Your task to perform on an android device: Open the calendar app, open the side menu, and click the "Day" option Image 0: 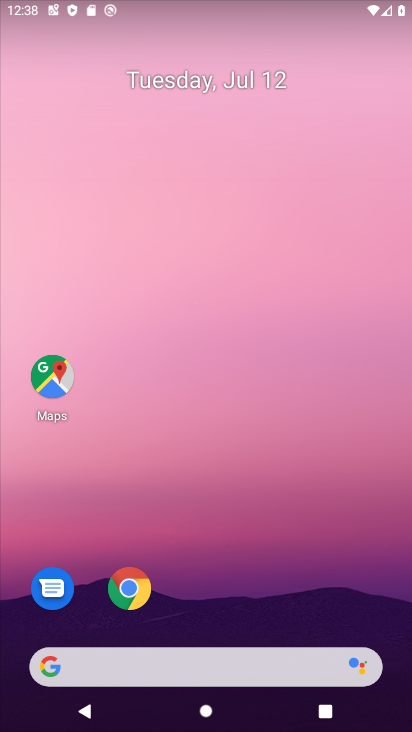
Step 0: drag from (267, 653) to (270, 176)
Your task to perform on an android device: Open the calendar app, open the side menu, and click the "Day" option Image 1: 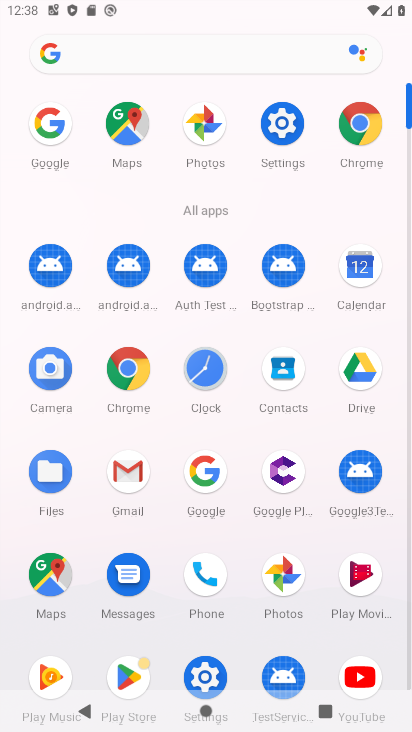
Step 1: click (358, 268)
Your task to perform on an android device: Open the calendar app, open the side menu, and click the "Day" option Image 2: 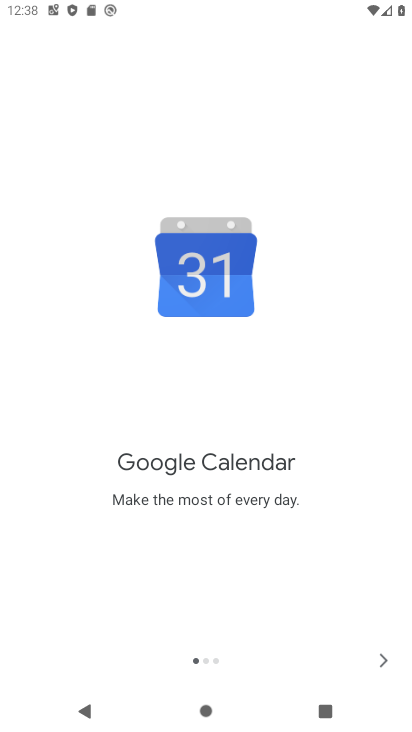
Step 2: click (388, 654)
Your task to perform on an android device: Open the calendar app, open the side menu, and click the "Day" option Image 3: 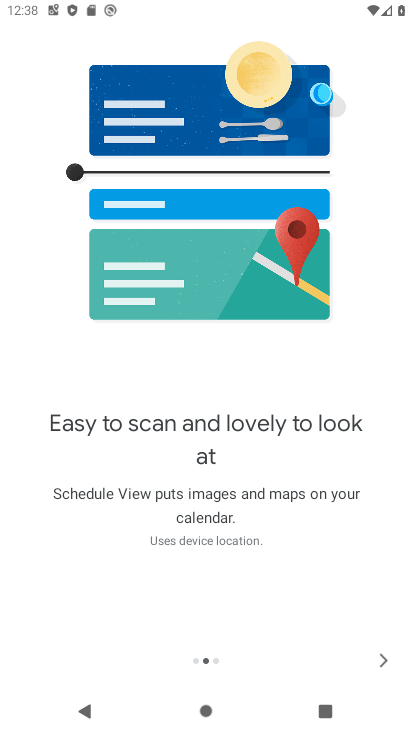
Step 3: click (383, 659)
Your task to perform on an android device: Open the calendar app, open the side menu, and click the "Day" option Image 4: 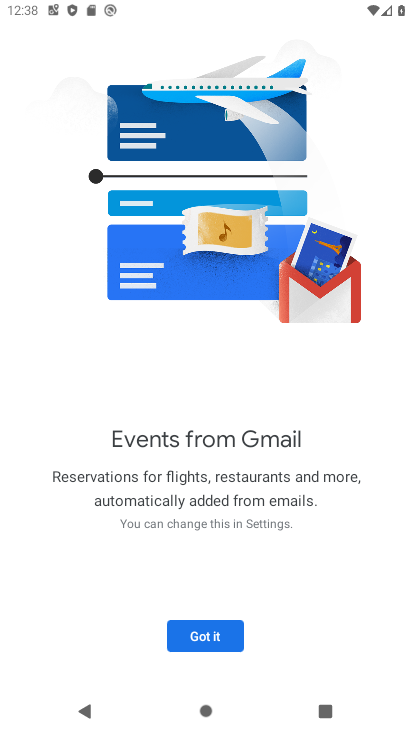
Step 4: click (221, 638)
Your task to perform on an android device: Open the calendar app, open the side menu, and click the "Day" option Image 5: 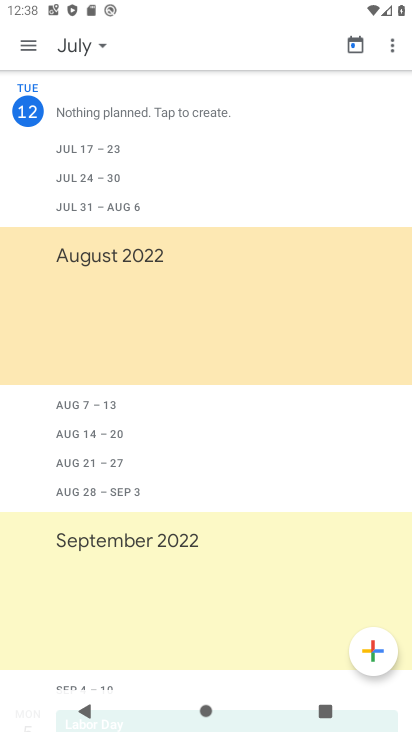
Step 5: click (26, 37)
Your task to perform on an android device: Open the calendar app, open the side menu, and click the "Day" option Image 6: 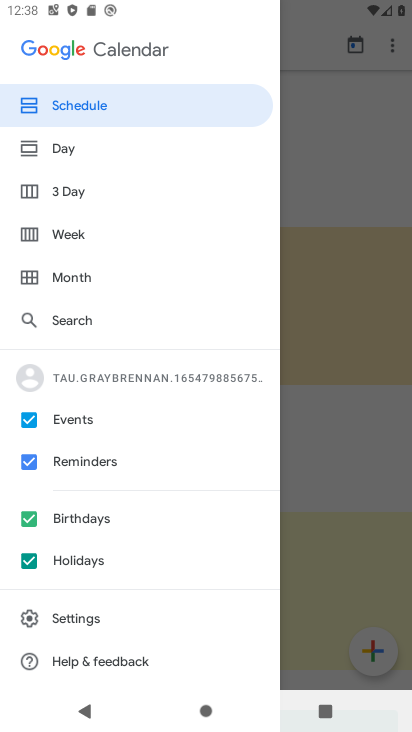
Step 6: click (48, 161)
Your task to perform on an android device: Open the calendar app, open the side menu, and click the "Day" option Image 7: 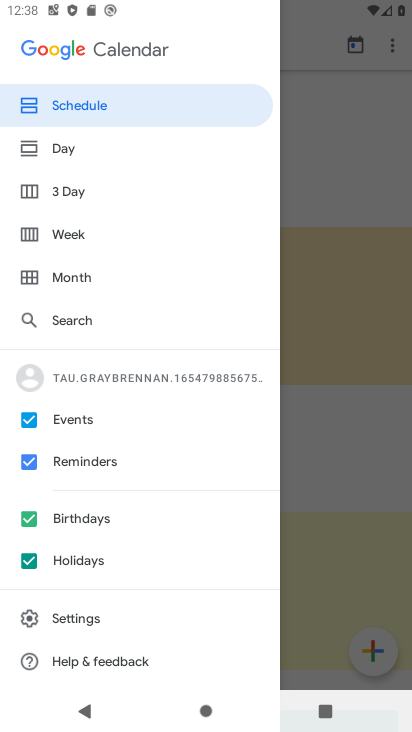
Step 7: click (86, 149)
Your task to perform on an android device: Open the calendar app, open the side menu, and click the "Day" option Image 8: 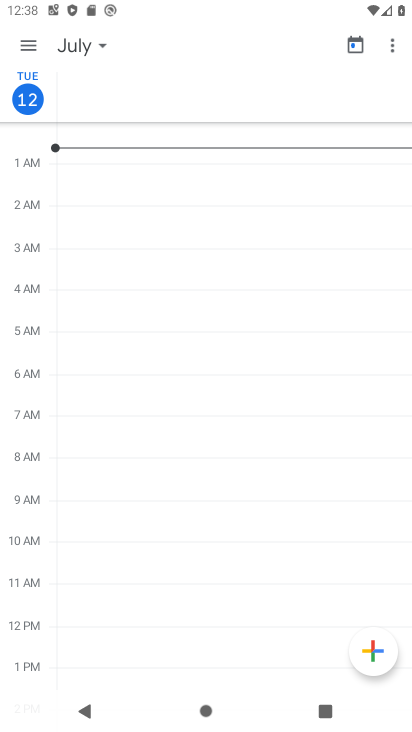
Step 8: task complete